Your task to perform on an android device: check the backup settings in the google photos Image 0: 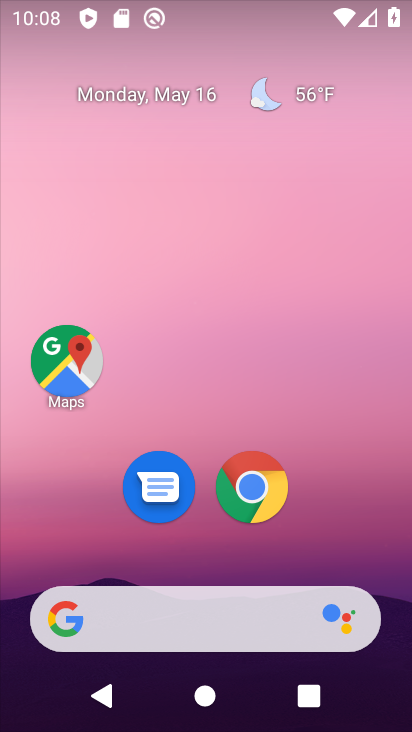
Step 0: drag from (292, 564) to (304, 138)
Your task to perform on an android device: check the backup settings in the google photos Image 1: 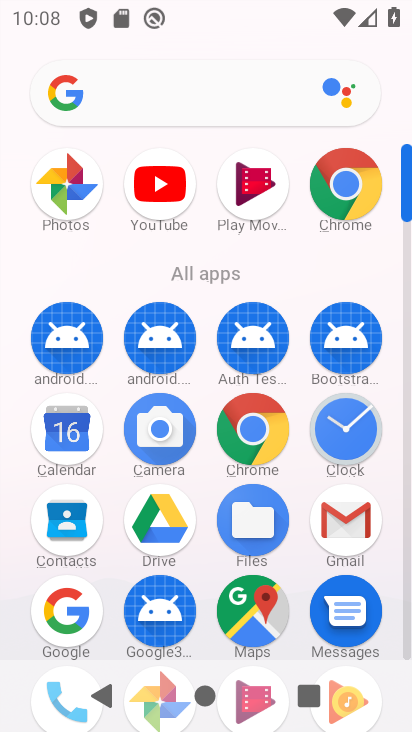
Step 1: click (50, 194)
Your task to perform on an android device: check the backup settings in the google photos Image 2: 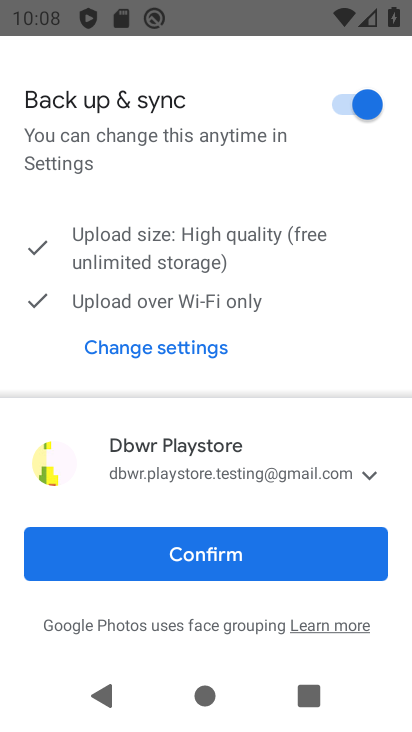
Step 2: click (199, 556)
Your task to perform on an android device: check the backup settings in the google photos Image 3: 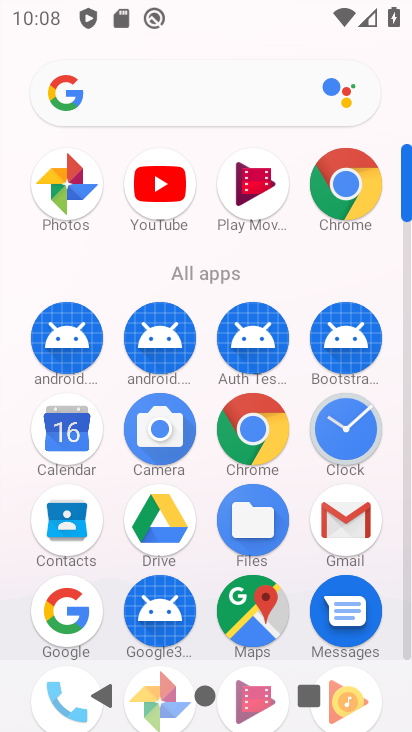
Step 3: click (68, 207)
Your task to perform on an android device: check the backup settings in the google photos Image 4: 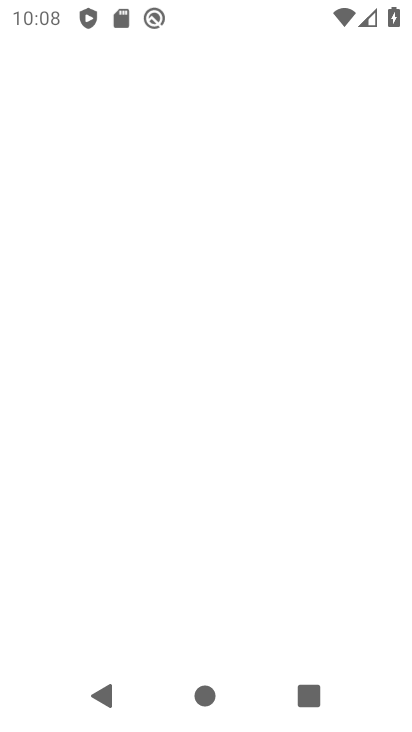
Step 4: click (65, 191)
Your task to perform on an android device: check the backup settings in the google photos Image 5: 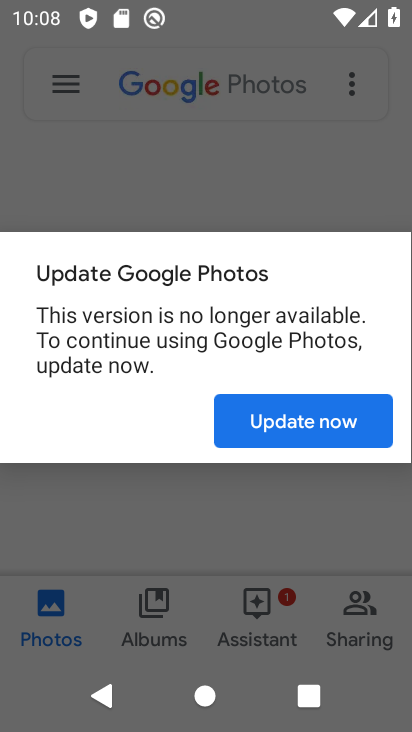
Step 5: click (311, 422)
Your task to perform on an android device: check the backup settings in the google photos Image 6: 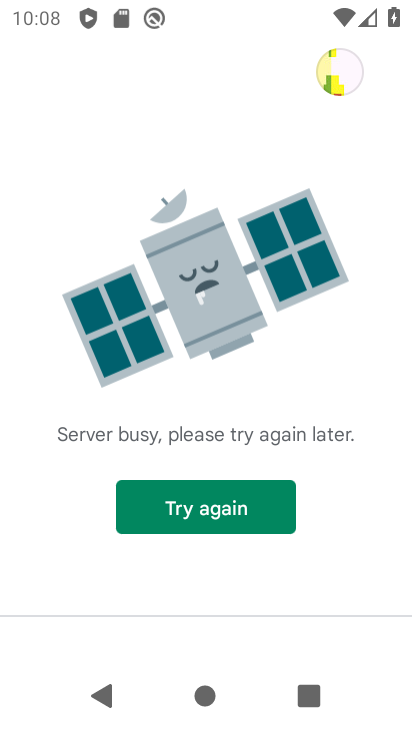
Step 6: task complete